Your task to perform on an android device: toggle improve location accuracy Image 0: 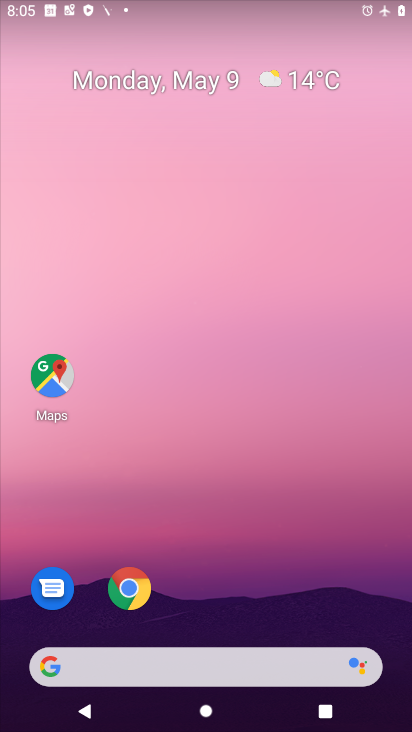
Step 0: drag from (325, 605) to (298, 35)
Your task to perform on an android device: toggle improve location accuracy Image 1: 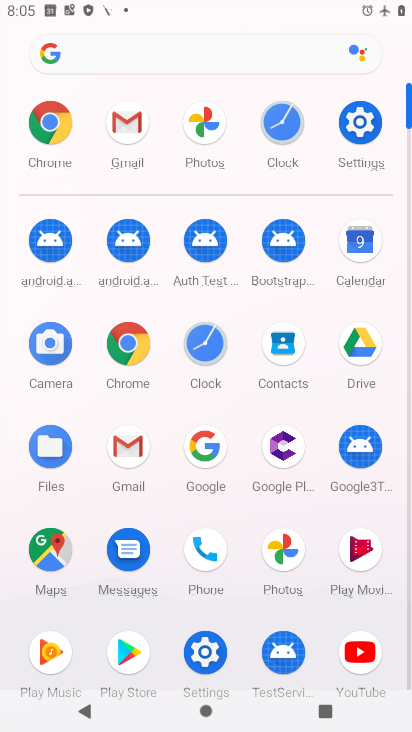
Step 1: click (193, 641)
Your task to perform on an android device: toggle improve location accuracy Image 2: 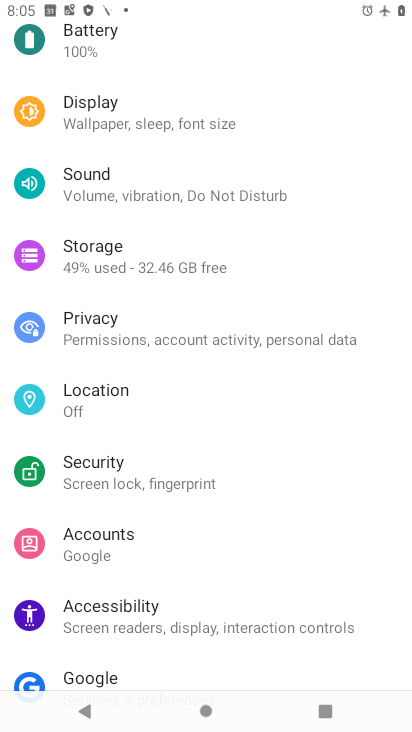
Step 2: click (135, 399)
Your task to perform on an android device: toggle improve location accuracy Image 3: 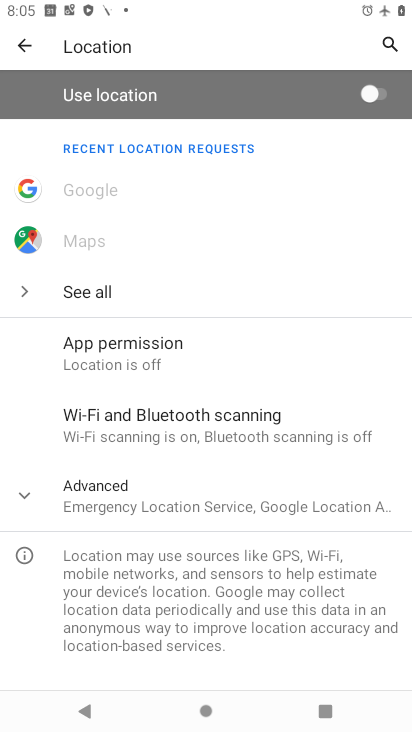
Step 3: click (119, 485)
Your task to perform on an android device: toggle improve location accuracy Image 4: 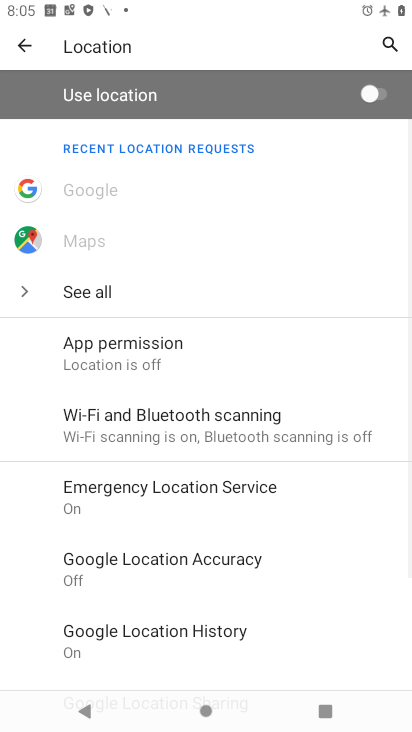
Step 4: click (233, 559)
Your task to perform on an android device: toggle improve location accuracy Image 5: 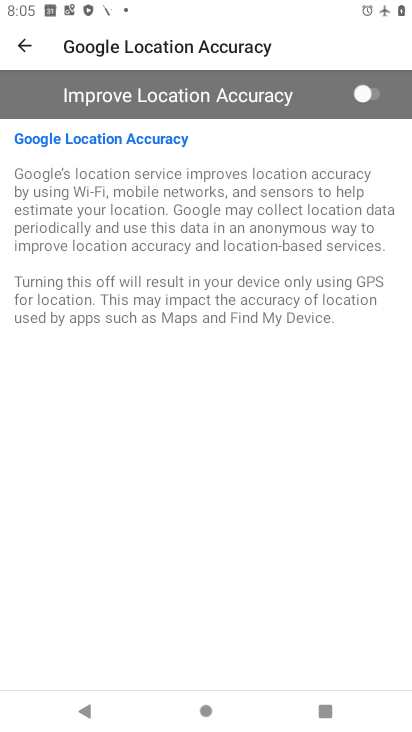
Step 5: click (354, 93)
Your task to perform on an android device: toggle improve location accuracy Image 6: 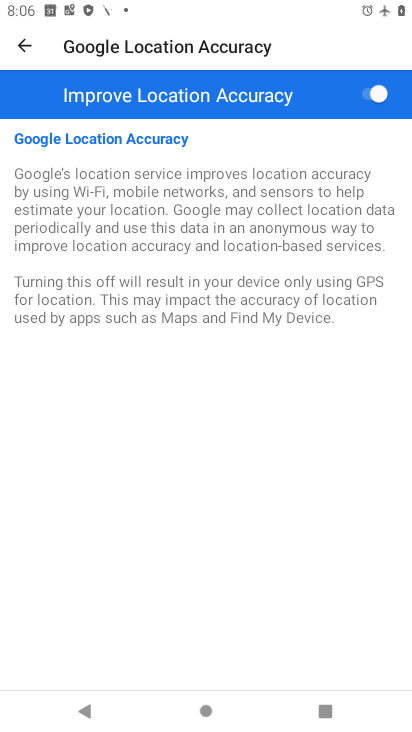
Step 6: task complete